Your task to perform on an android device: toggle location history Image 0: 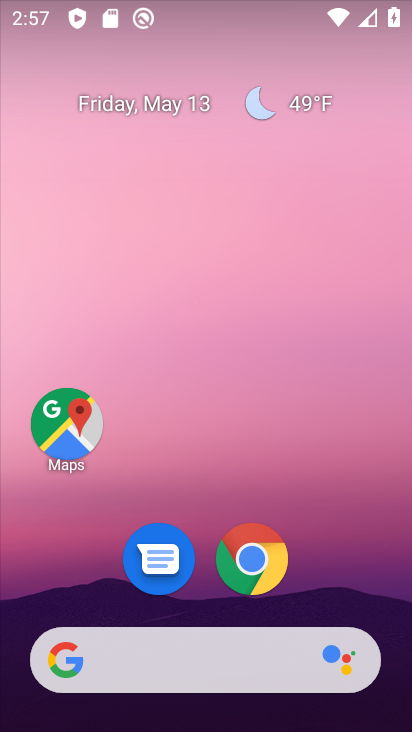
Step 0: drag from (402, 621) to (276, 133)
Your task to perform on an android device: toggle location history Image 1: 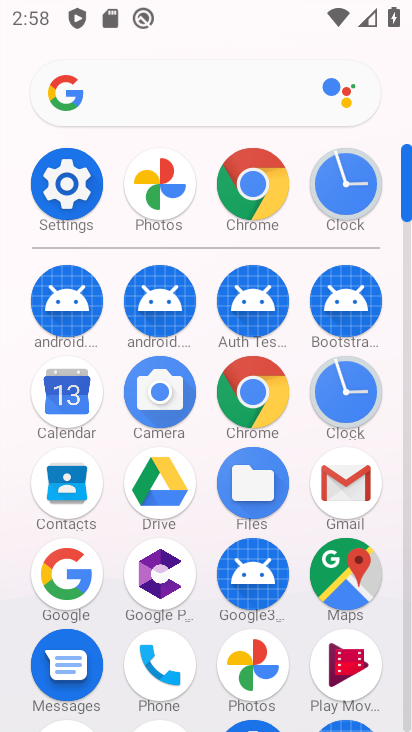
Step 1: click (411, 677)
Your task to perform on an android device: toggle location history Image 2: 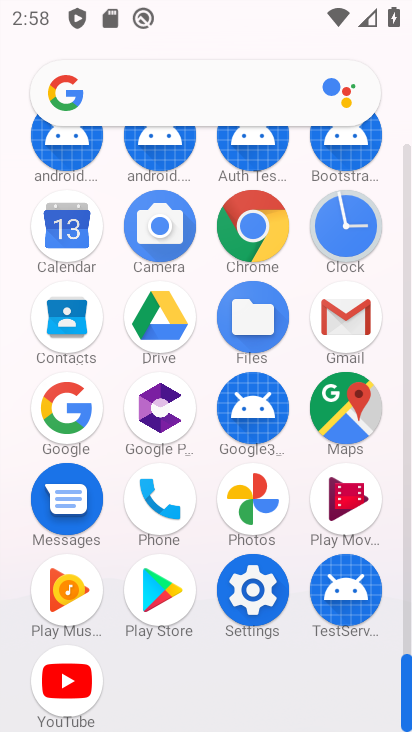
Step 2: click (343, 409)
Your task to perform on an android device: toggle location history Image 3: 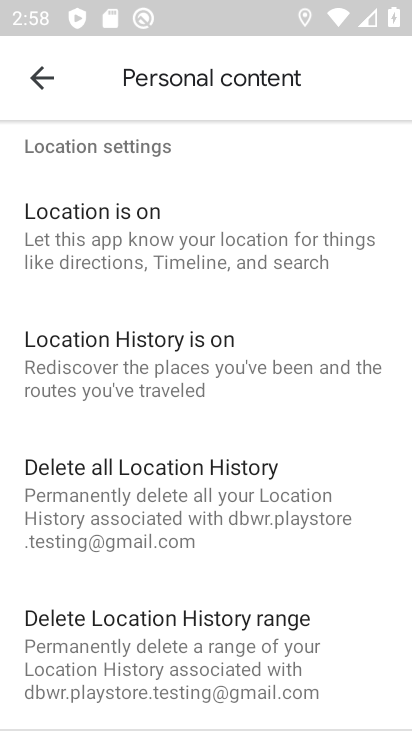
Step 3: click (116, 354)
Your task to perform on an android device: toggle location history Image 4: 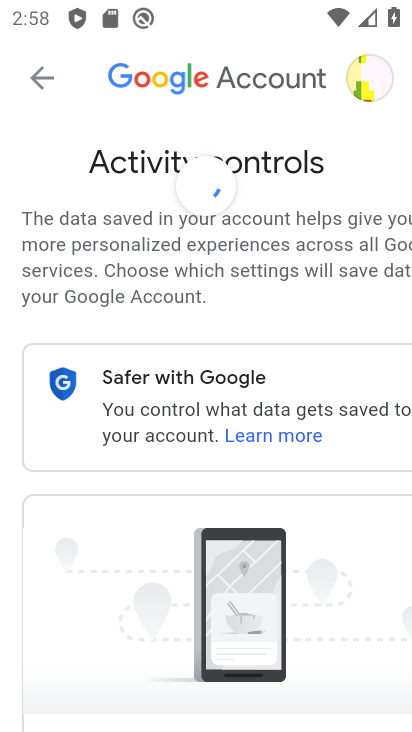
Step 4: drag from (310, 519) to (296, 293)
Your task to perform on an android device: toggle location history Image 5: 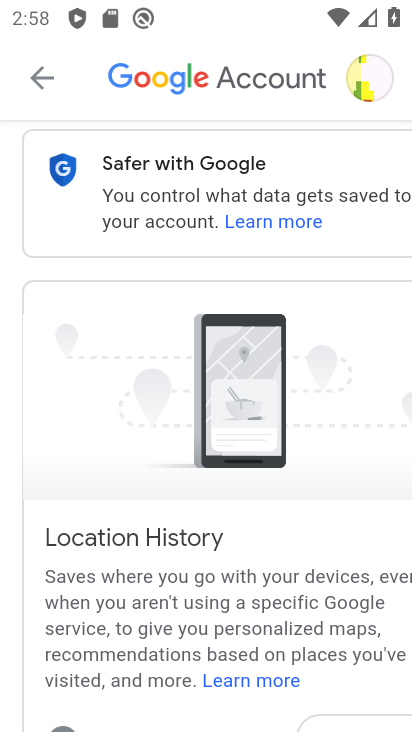
Step 5: drag from (283, 612) to (290, 347)
Your task to perform on an android device: toggle location history Image 6: 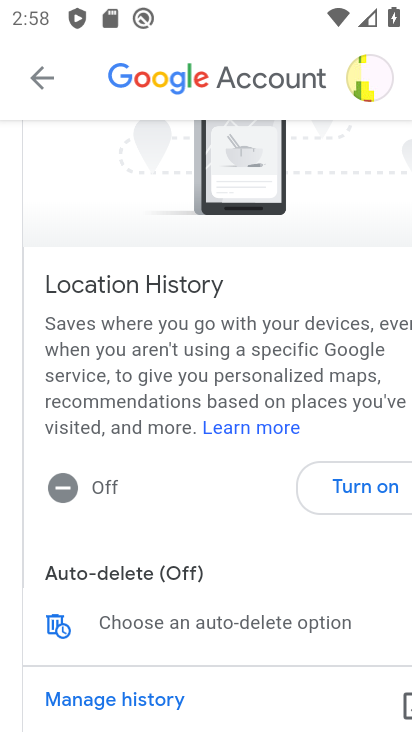
Step 6: click (366, 487)
Your task to perform on an android device: toggle location history Image 7: 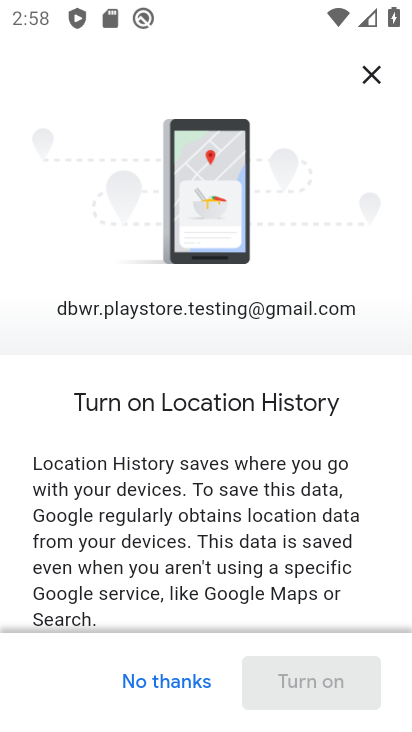
Step 7: drag from (338, 569) to (278, 170)
Your task to perform on an android device: toggle location history Image 8: 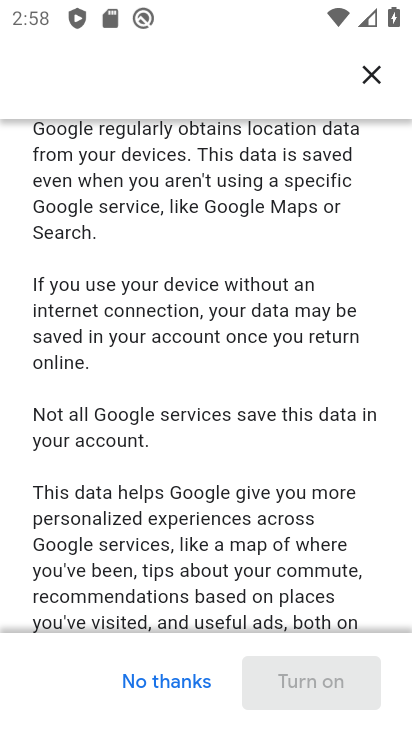
Step 8: drag from (290, 509) to (279, 117)
Your task to perform on an android device: toggle location history Image 9: 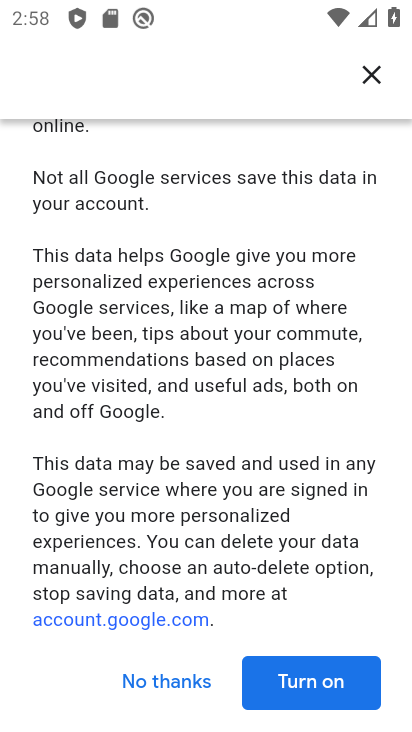
Step 9: click (325, 684)
Your task to perform on an android device: toggle location history Image 10: 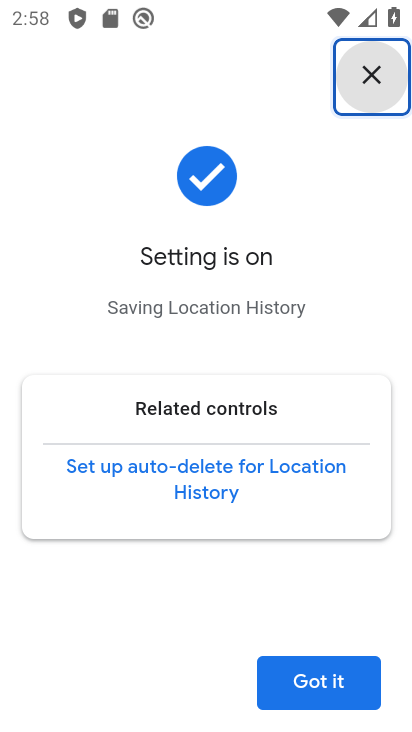
Step 10: click (320, 673)
Your task to perform on an android device: toggle location history Image 11: 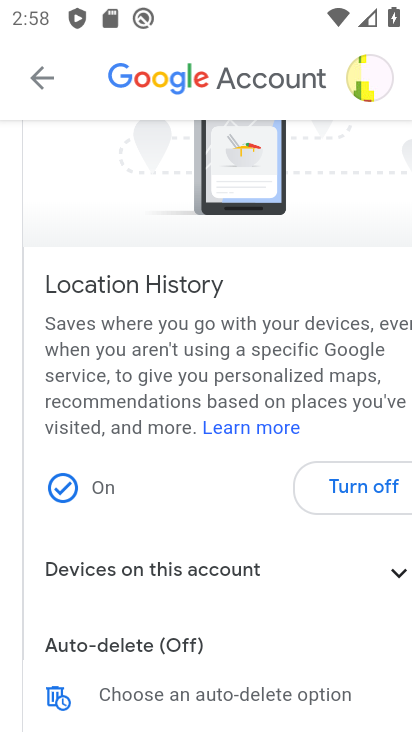
Step 11: task complete